Your task to perform on an android device: turn on bluetooth scan Image 0: 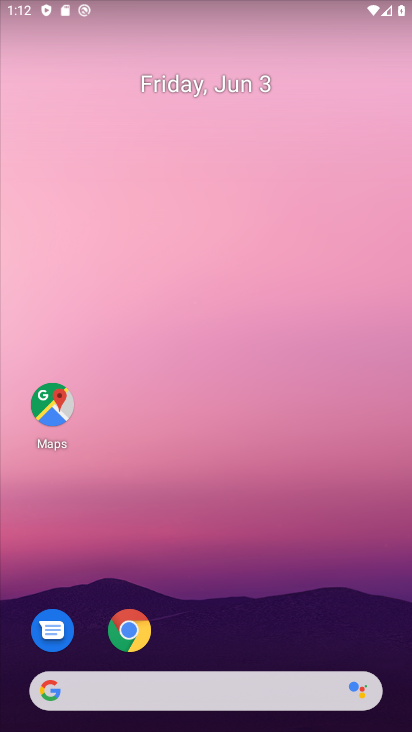
Step 0: drag from (225, 729) to (225, 113)
Your task to perform on an android device: turn on bluetooth scan Image 1: 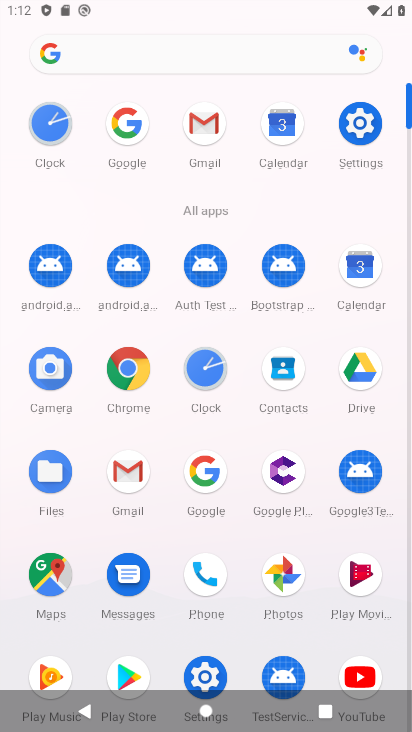
Step 1: click (358, 131)
Your task to perform on an android device: turn on bluetooth scan Image 2: 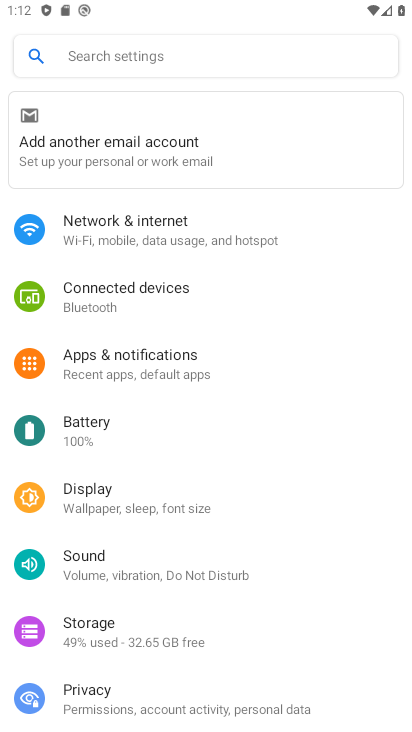
Step 2: drag from (103, 676) to (111, 384)
Your task to perform on an android device: turn on bluetooth scan Image 3: 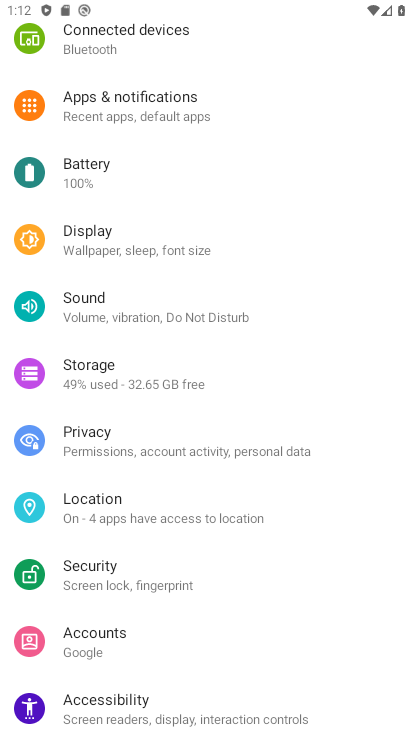
Step 3: click (116, 501)
Your task to perform on an android device: turn on bluetooth scan Image 4: 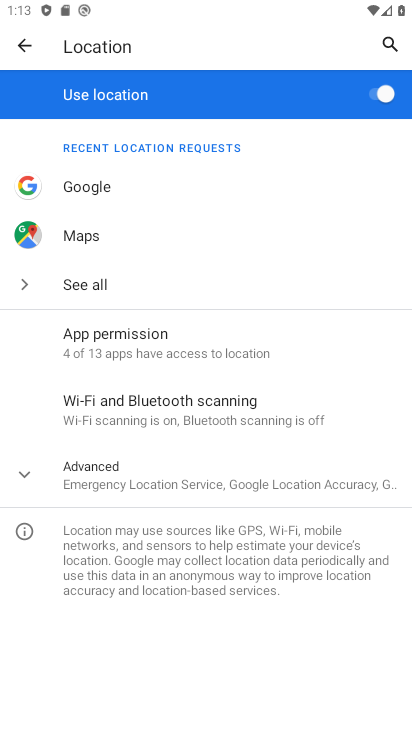
Step 4: click (138, 408)
Your task to perform on an android device: turn on bluetooth scan Image 5: 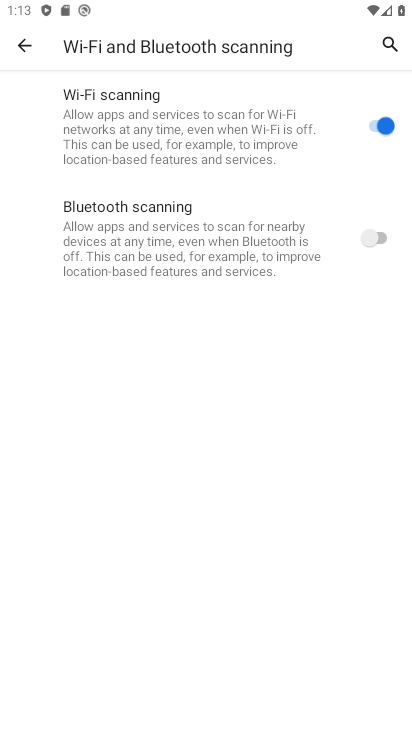
Step 5: click (375, 235)
Your task to perform on an android device: turn on bluetooth scan Image 6: 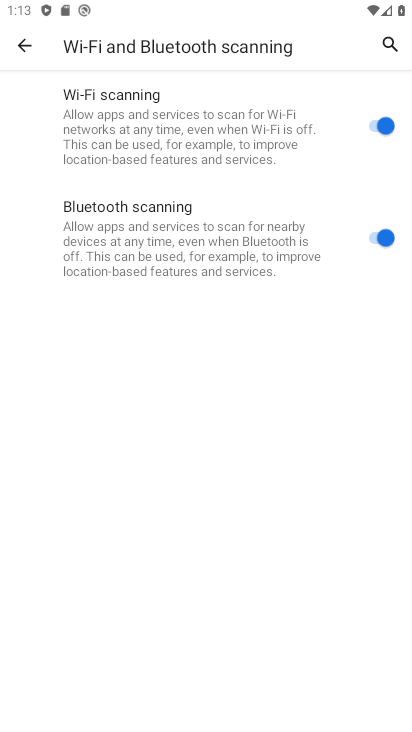
Step 6: task complete